Your task to perform on an android device: change your default location settings in chrome Image 0: 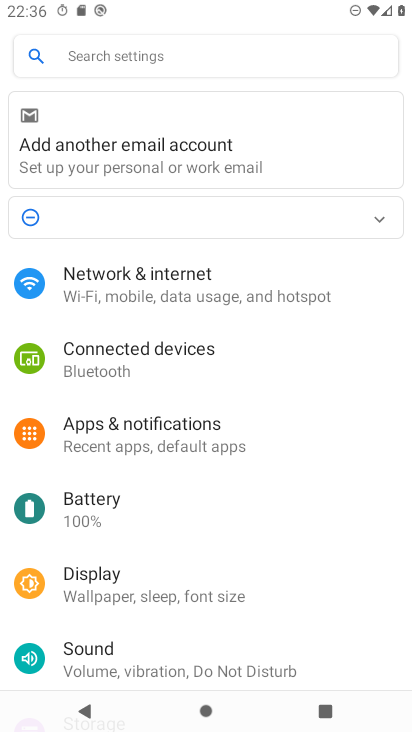
Step 0: press home button
Your task to perform on an android device: change your default location settings in chrome Image 1: 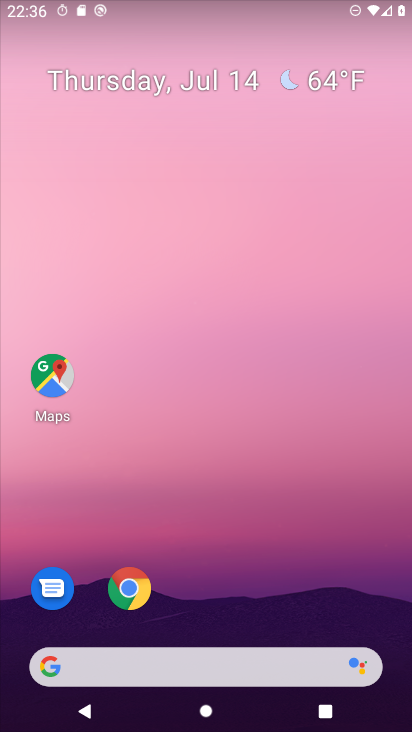
Step 1: drag from (339, 574) to (369, 137)
Your task to perform on an android device: change your default location settings in chrome Image 2: 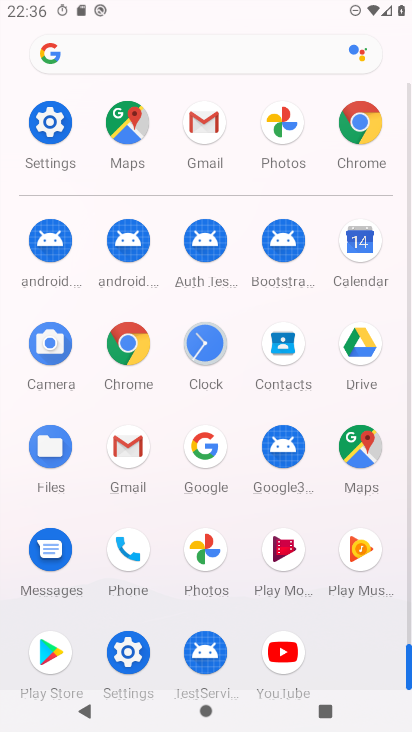
Step 2: click (361, 137)
Your task to perform on an android device: change your default location settings in chrome Image 3: 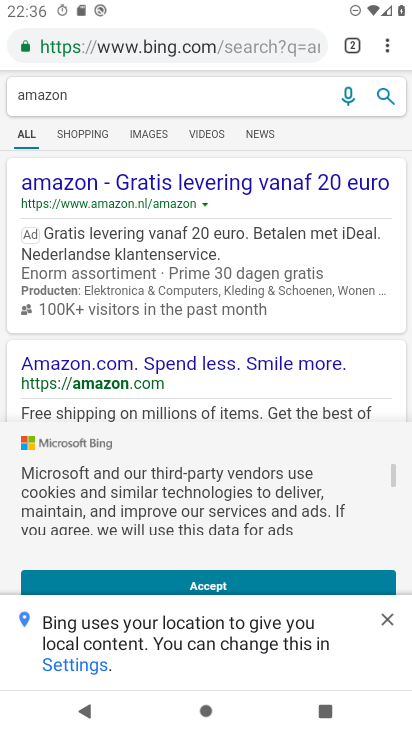
Step 3: click (386, 44)
Your task to perform on an android device: change your default location settings in chrome Image 4: 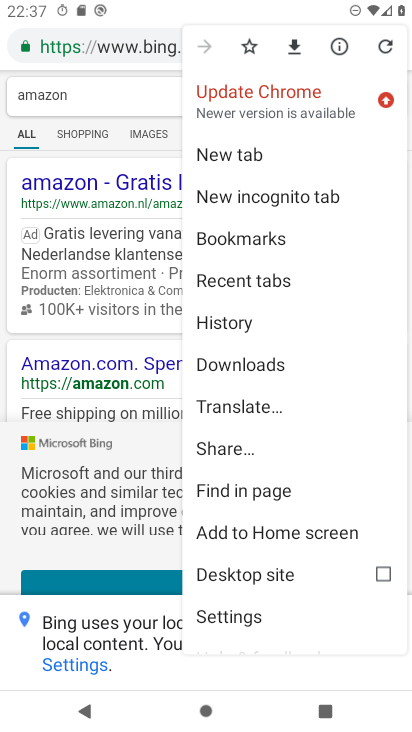
Step 4: drag from (377, 337) to (384, 260)
Your task to perform on an android device: change your default location settings in chrome Image 5: 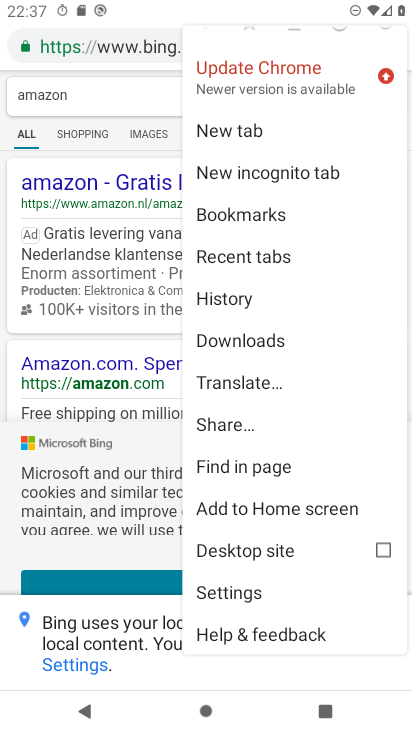
Step 5: click (306, 595)
Your task to perform on an android device: change your default location settings in chrome Image 6: 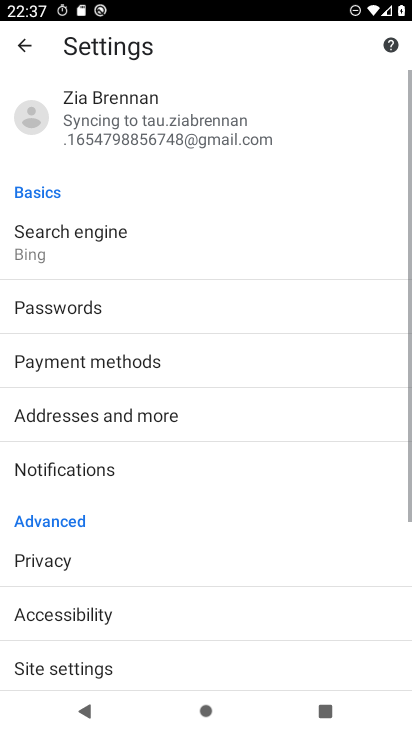
Step 6: drag from (305, 594) to (321, 495)
Your task to perform on an android device: change your default location settings in chrome Image 7: 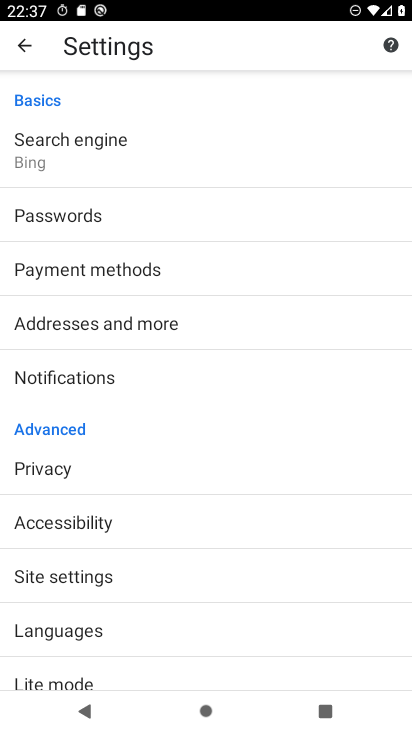
Step 7: drag from (320, 581) to (320, 489)
Your task to perform on an android device: change your default location settings in chrome Image 8: 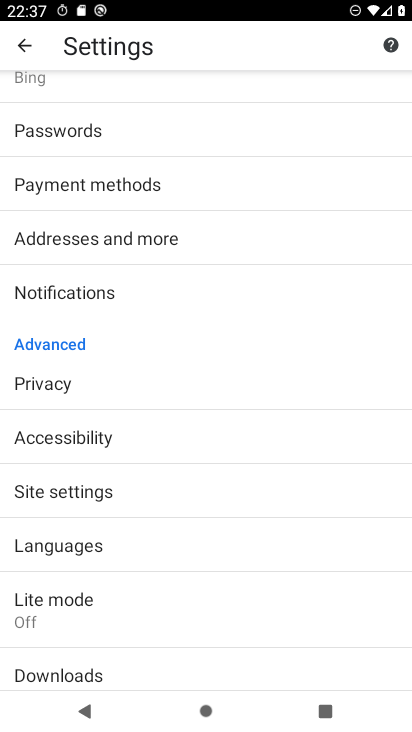
Step 8: drag from (346, 455) to (354, 286)
Your task to perform on an android device: change your default location settings in chrome Image 9: 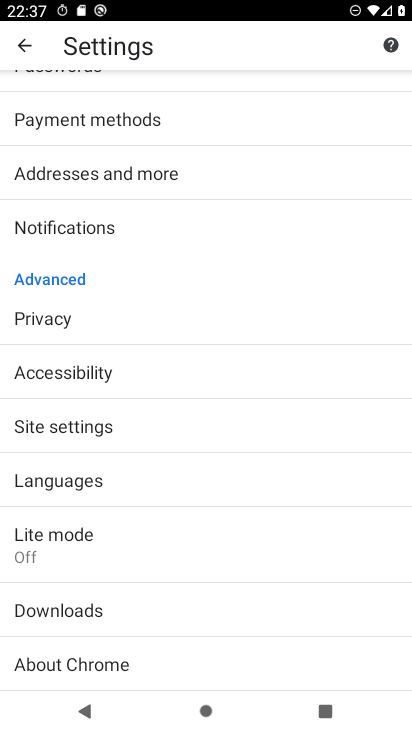
Step 9: drag from (313, 362) to (313, 400)
Your task to perform on an android device: change your default location settings in chrome Image 10: 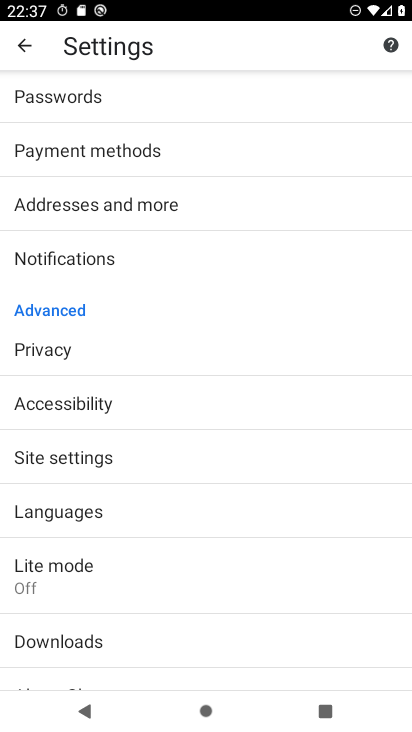
Step 10: drag from (315, 326) to (314, 360)
Your task to perform on an android device: change your default location settings in chrome Image 11: 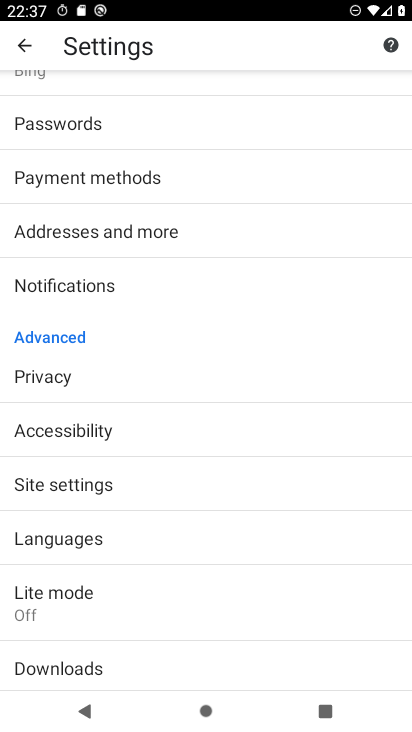
Step 11: drag from (316, 439) to (319, 370)
Your task to perform on an android device: change your default location settings in chrome Image 12: 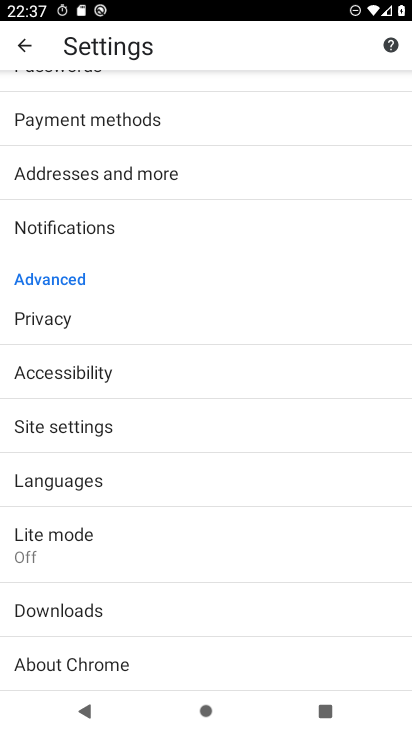
Step 12: click (258, 421)
Your task to perform on an android device: change your default location settings in chrome Image 13: 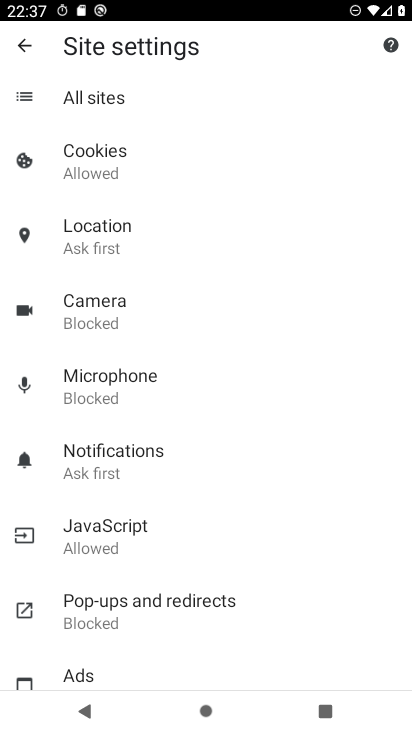
Step 13: drag from (319, 497) to (327, 415)
Your task to perform on an android device: change your default location settings in chrome Image 14: 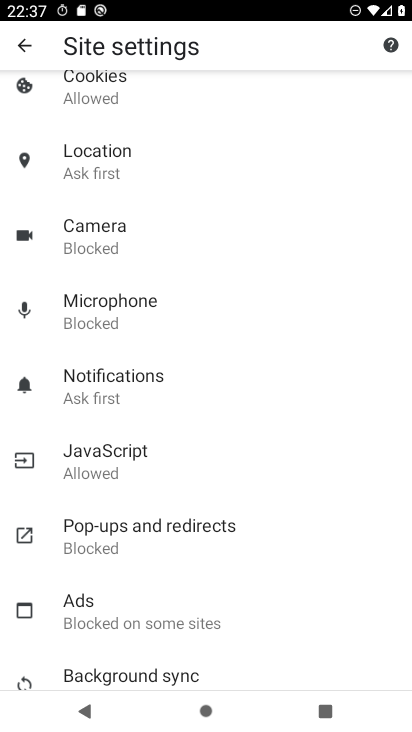
Step 14: drag from (325, 530) to (327, 441)
Your task to perform on an android device: change your default location settings in chrome Image 15: 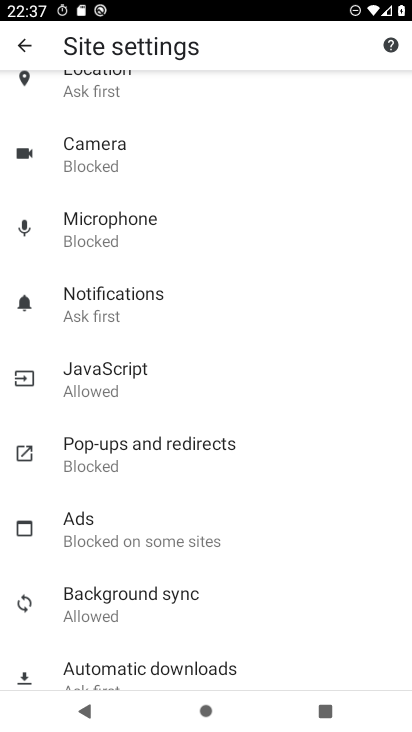
Step 15: drag from (320, 526) to (321, 441)
Your task to perform on an android device: change your default location settings in chrome Image 16: 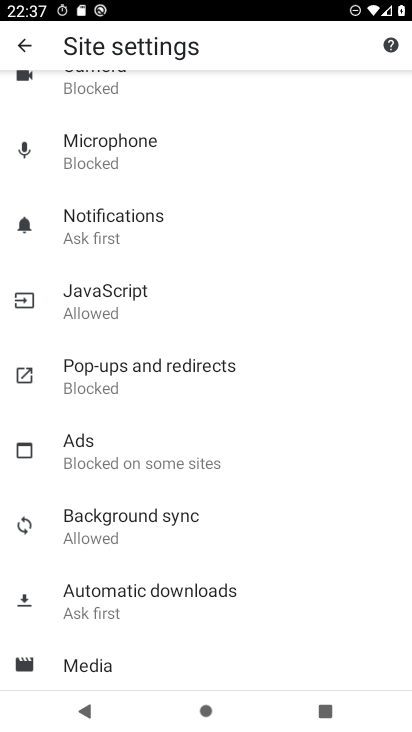
Step 16: drag from (317, 524) to (319, 435)
Your task to perform on an android device: change your default location settings in chrome Image 17: 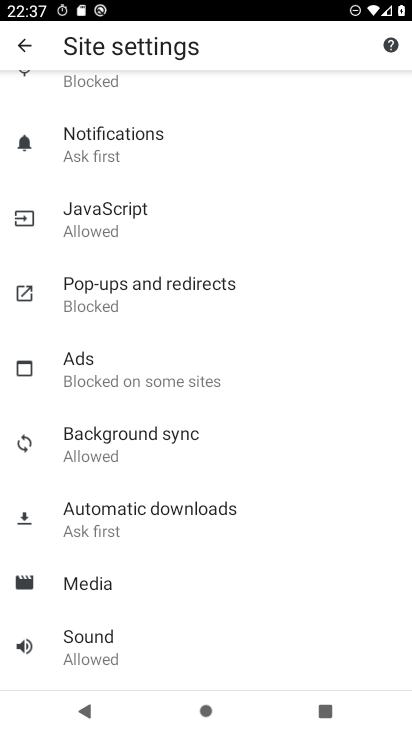
Step 17: drag from (312, 512) to (312, 428)
Your task to perform on an android device: change your default location settings in chrome Image 18: 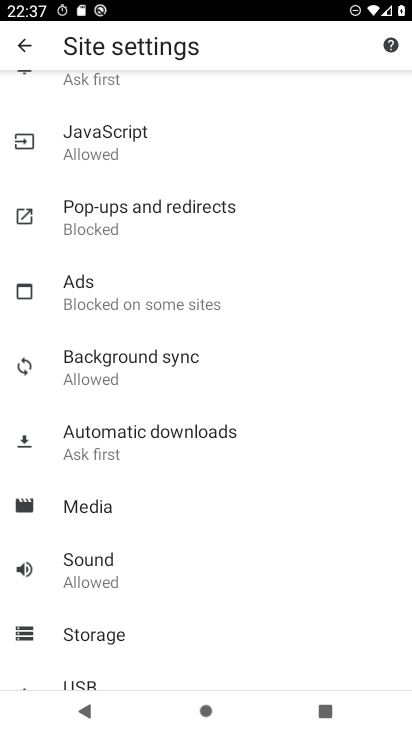
Step 18: drag from (301, 546) to (305, 448)
Your task to perform on an android device: change your default location settings in chrome Image 19: 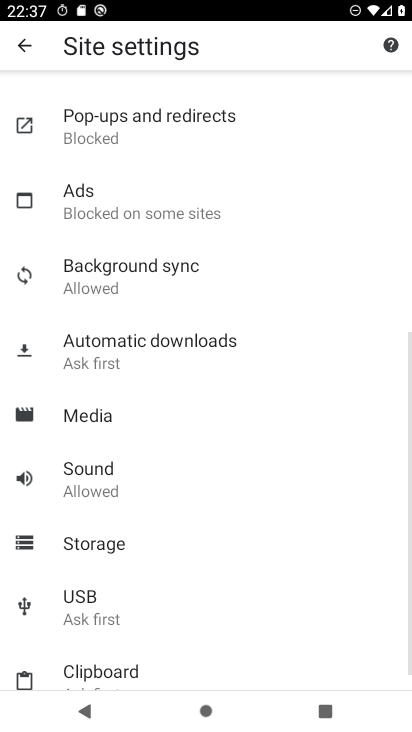
Step 19: drag from (308, 328) to (309, 398)
Your task to perform on an android device: change your default location settings in chrome Image 20: 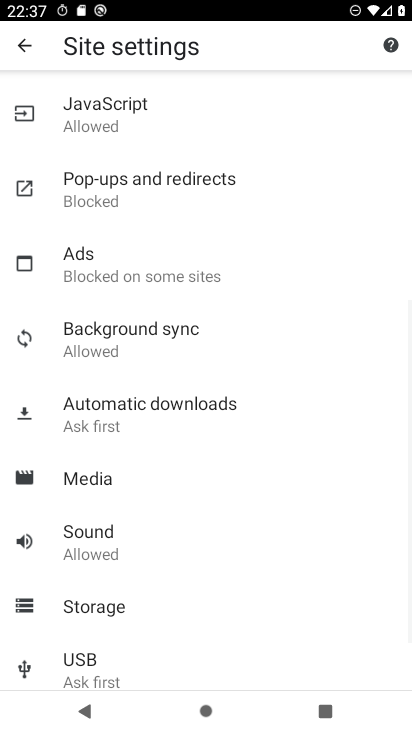
Step 20: drag from (322, 315) to (324, 381)
Your task to perform on an android device: change your default location settings in chrome Image 21: 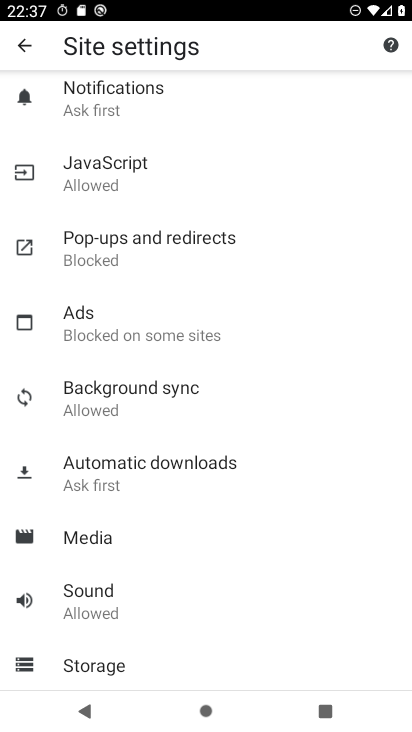
Step 21: drag from (338, 314) to (337, 400)
Your task to perform on an android device: change your default location settings in chrome Image 22: 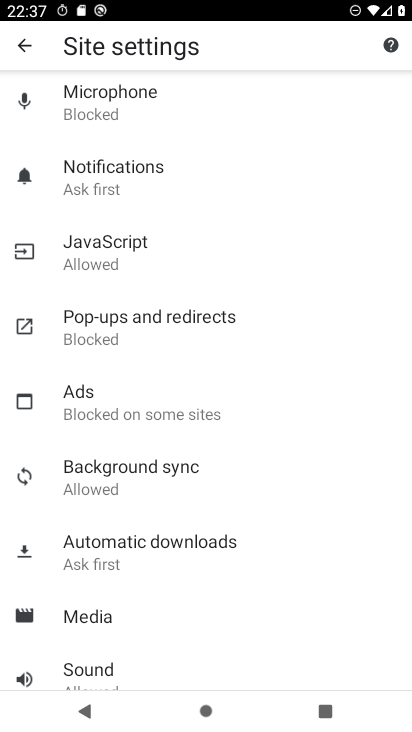
Step 22: drag from (337, 323) to (337, 392)
Your task to perform on an android device: change your default location settings in chrome Image 23: 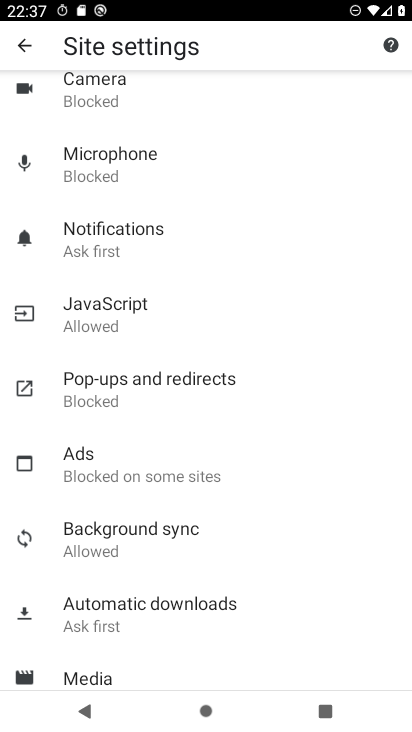
Step 23: drag from (345, 318) to (347, 419)
Your task to perform on an android device: change your default location settings in chrome Image 24: 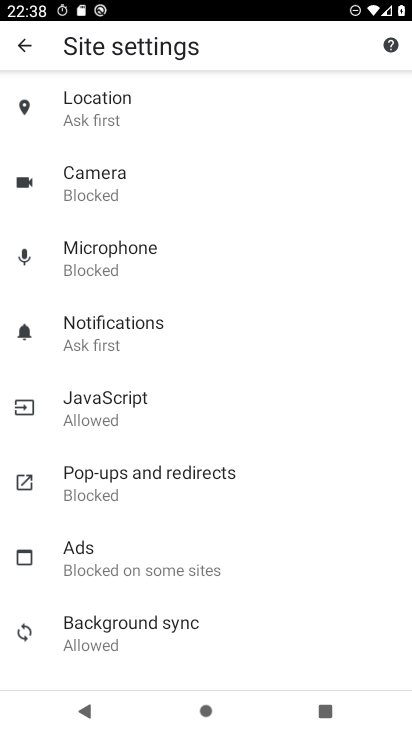
Step 24: drag from (351, 335) to (352, 438)
Your task to perform on an android device: change your default location settings in chrome Image 25: 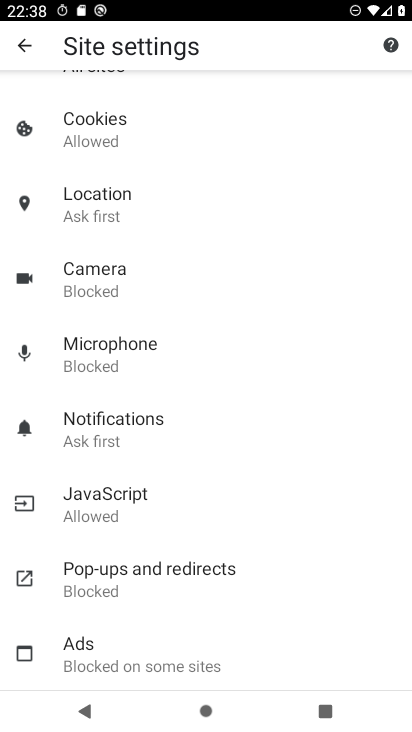
Step 25: drag from (353, 384) to (357, 475)
Your task to perform on an android device: change your default location settings in chrome Image 26: 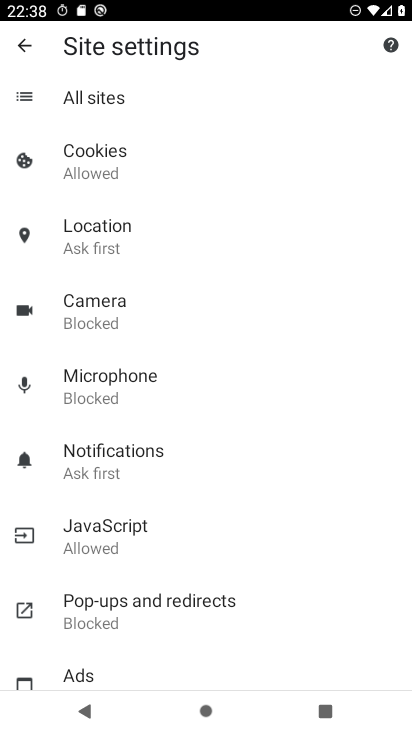
Step 26: click (150, 242)
Your task to perform on an android device: change your default location settings in chrome Image 27: 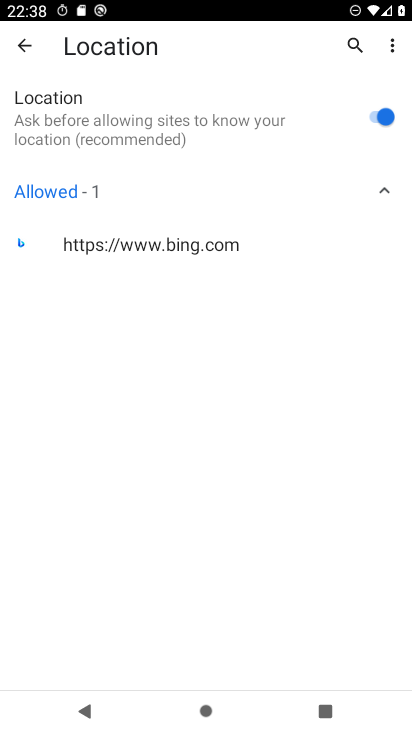
Step 27: click (362, 124)
Your task to perform on an android device: change your default location settings in chrome Image 28: 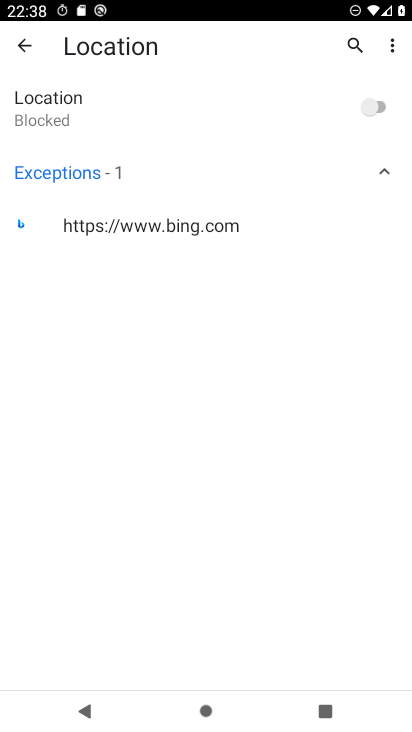
Step 28: task complete